Your task to perform on an android device: read, delete, or share a saved page in the chrome app Image 0: 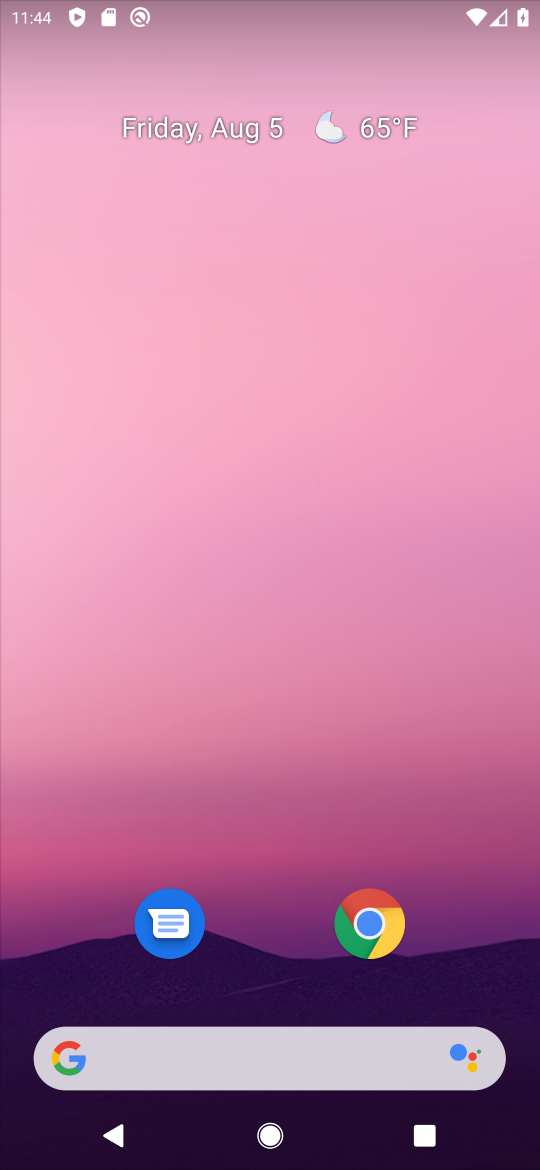
Step 0: click (363, 908)
Your task to perform on an android device: read, delete, or share a saved page in the chrome app Image 1: 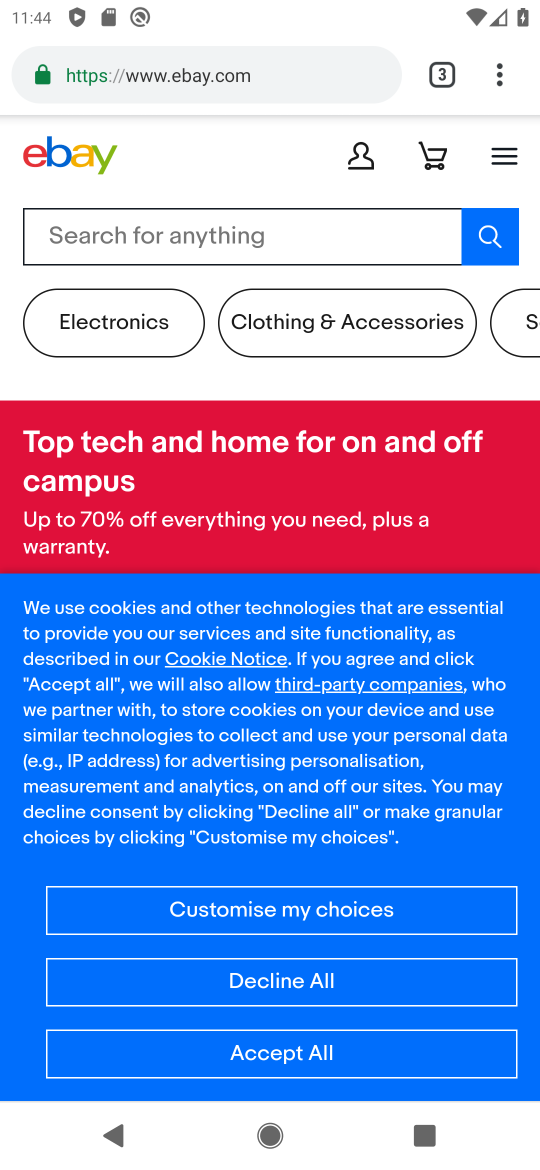
Step 1: click (495, 76)
Your task to perform on an android device: read, delete, or share a saved page in the chrome app Image 2: 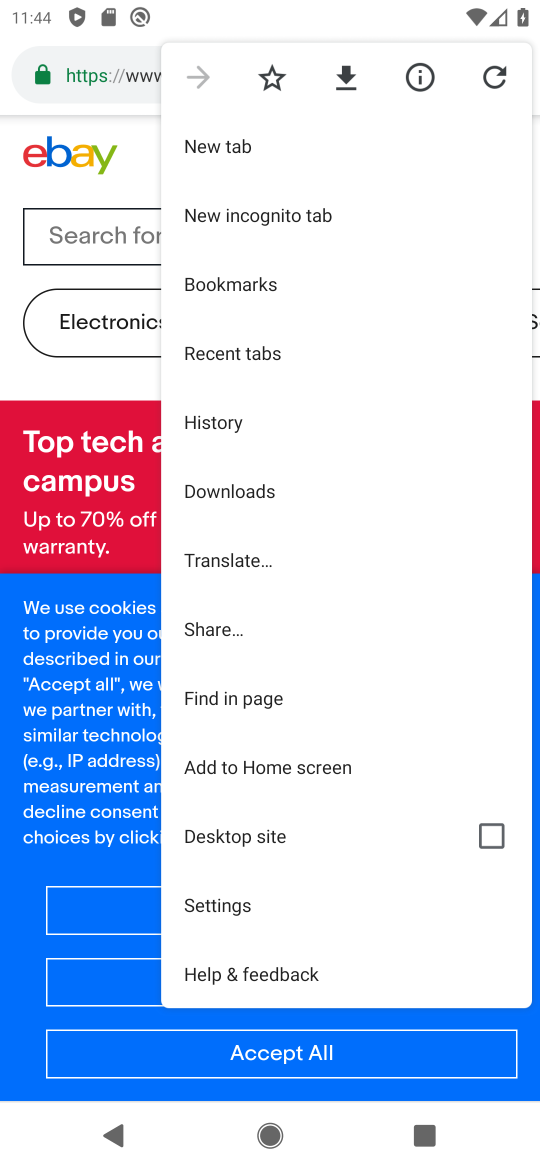
Step 2: click (238, 484)
Your task to perform on an android device: read, delete, or share a saved page in the chrome app Image 3: 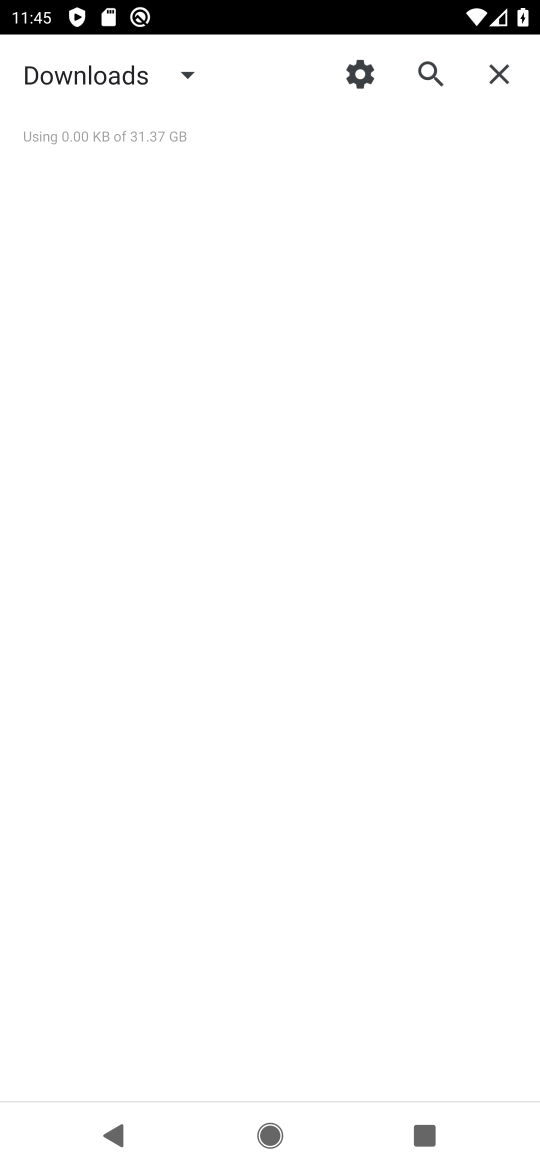
Step 3: click (159, 86)
Your task to perform on an android device: read, delete, or share a saved page in the chrome app Image 4: 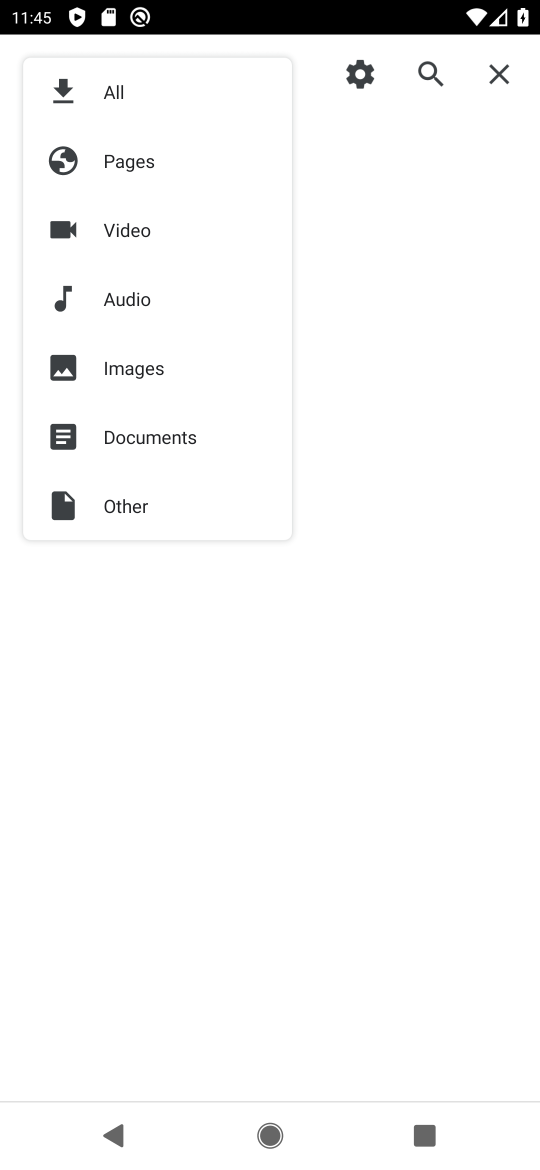
Step 4: click (186, 161)
Your task to perform on an android device: read, delete, or share a saved page in the chrome app Image 5: 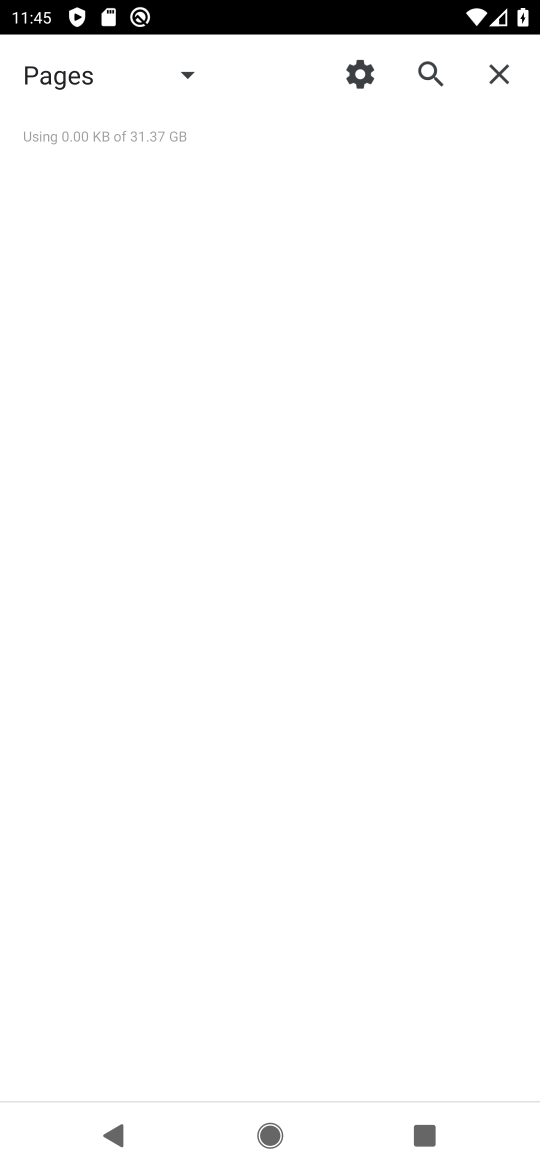
Step 5: task complete